Your task to perform on an android device: Go to calendar. Show me events next week Image 0: 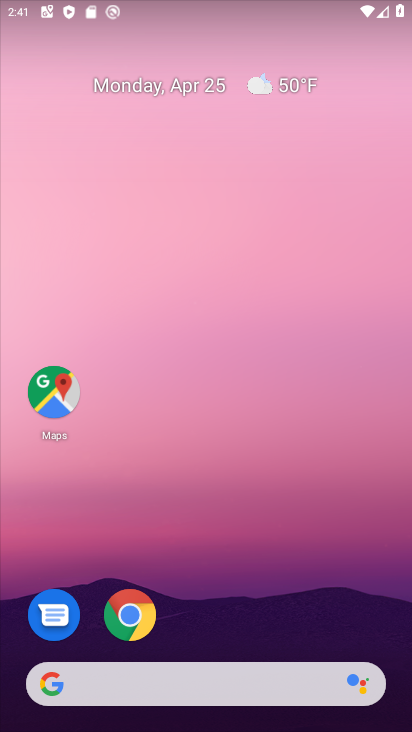
Step 0: drag from (210, 725) to (210, 51)
Your task to perform on an android device: Go to calendar. Show me events next week Image 1: 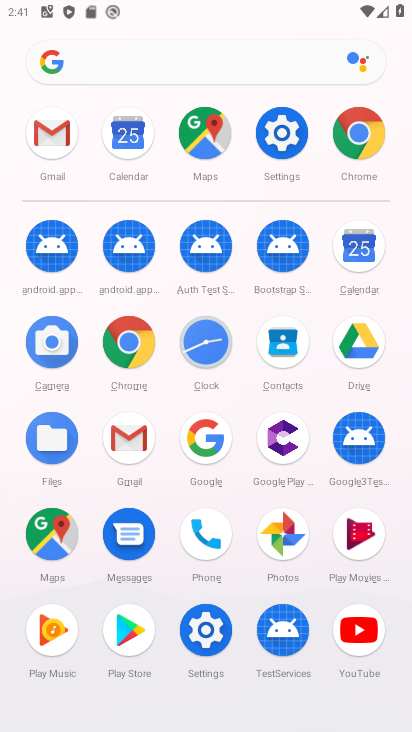
Step 1: click (364, 242)
Your task to perform on an android device: Go to calendar. Show me events next week Image 2: 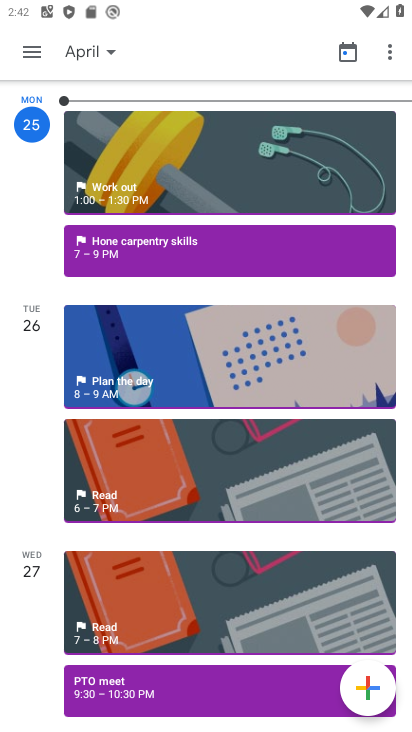
Step 2: click (35, 56)
Your task to perform on an android device: Go to calendar. Show me events next week Image 3: 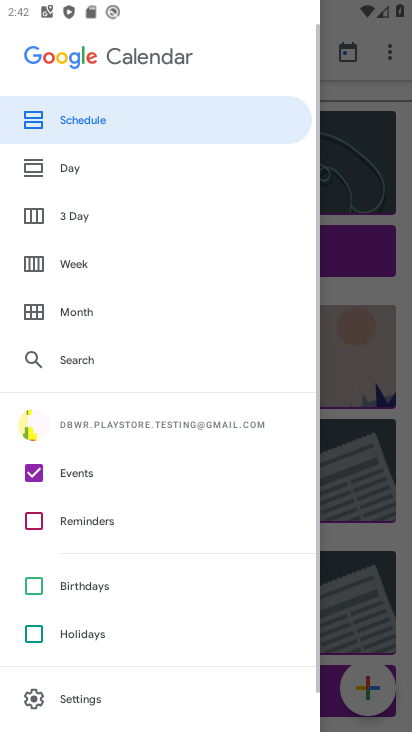
Step 3: click (84, 263)
Your task to perform on an android device: Go to calendar. Show me events next week Image 4: 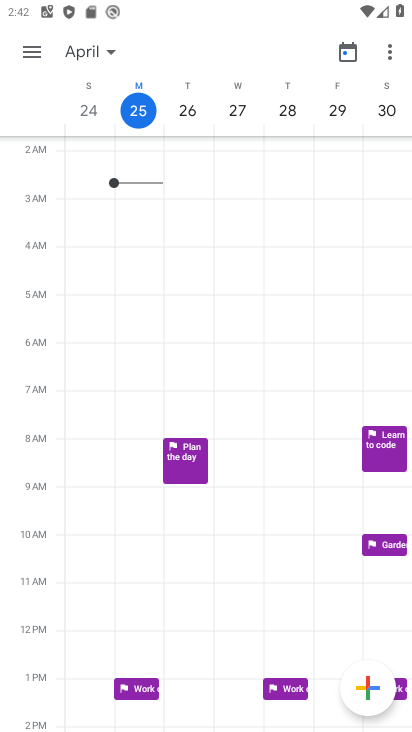
Step 4: task complete